Your task to perform on an android device: When is my next appointment? Image 0: 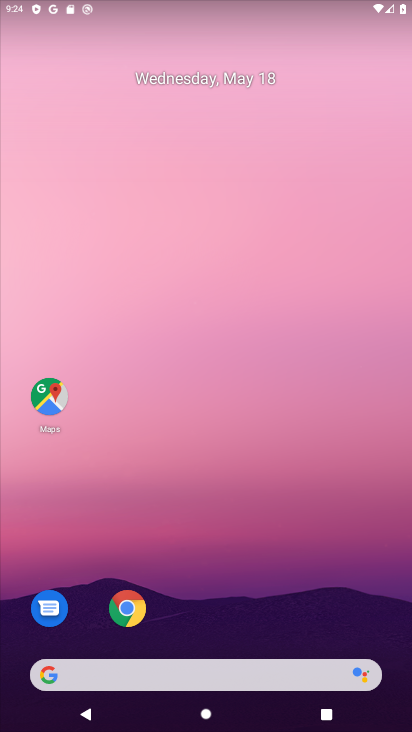
Step 0: drag from (342, 610) to (263, 217)
Your task to perform on an android device: When is my next appointment? Image 1: 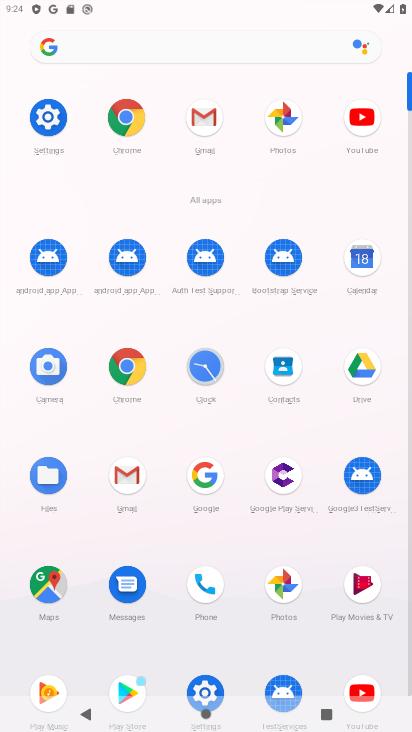
Step 1: click (361, 284)
Your task to perform on an android device: When is my next appointment? Image 2: 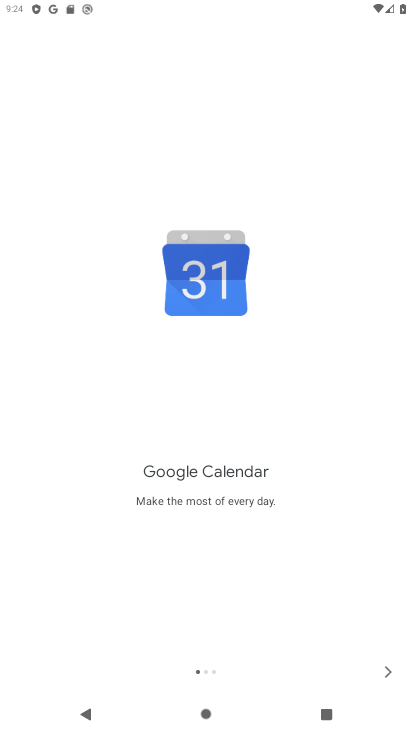
Step 2: click (391, 676)
Your task to perform on an android device: When is my next appointment? Image 3: 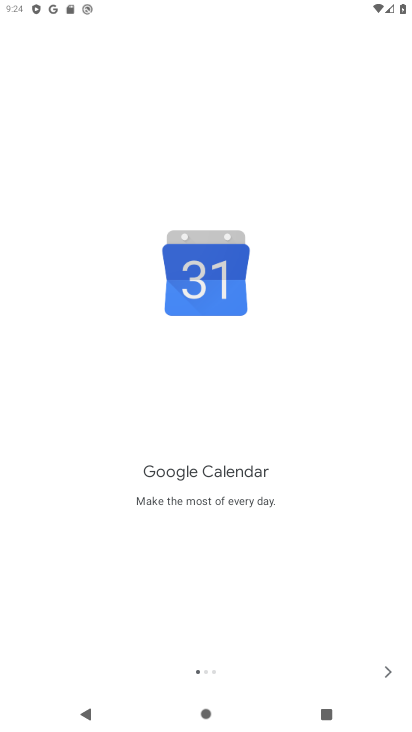
Step 3: click (391, 676)
Your task to perform on an android device: When is my next appointment? Image 4: 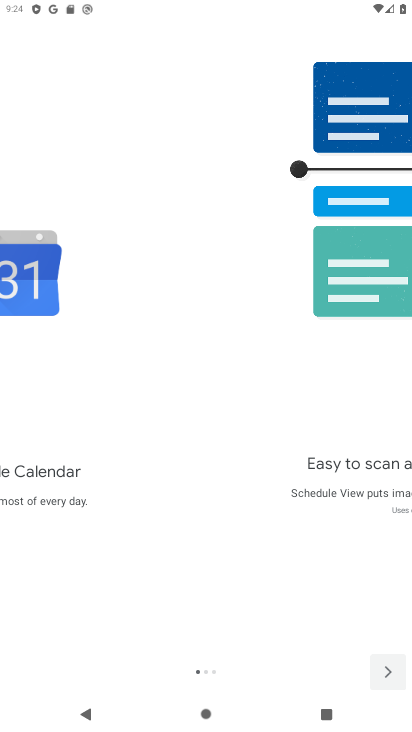
Step 4: click (391, 676)
Your task to perform on an android device: When is my next appointment? Image 5: 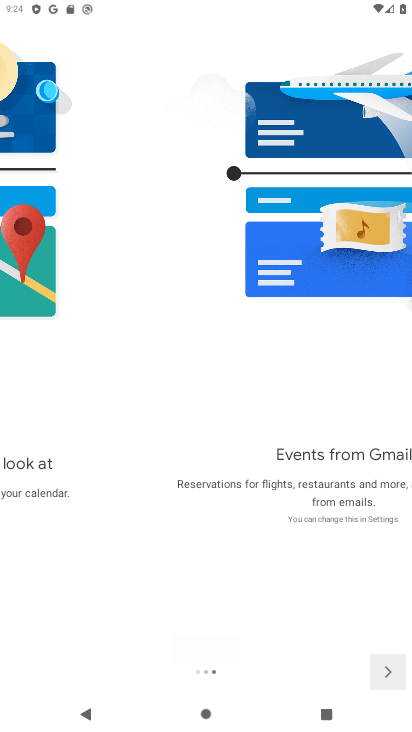
Step 5: click (391, 676)
Your task to perform on an android device: When is my next appointment? Image 6: 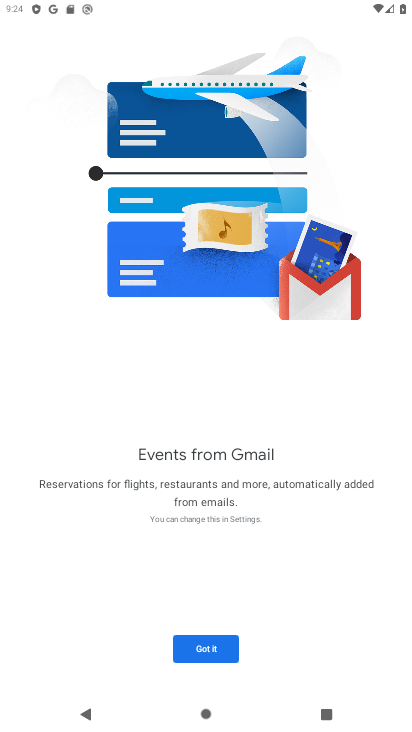
Step 6: click (220, 658)
Your task to perform on an android device: When is my next appointment? Image 7: 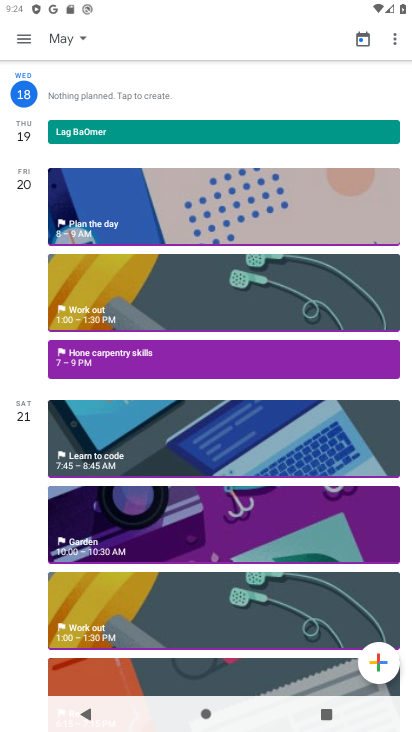
Step 7: click (25, 43)
Your task to perform on an android device: When is my next appointment? Image 8: 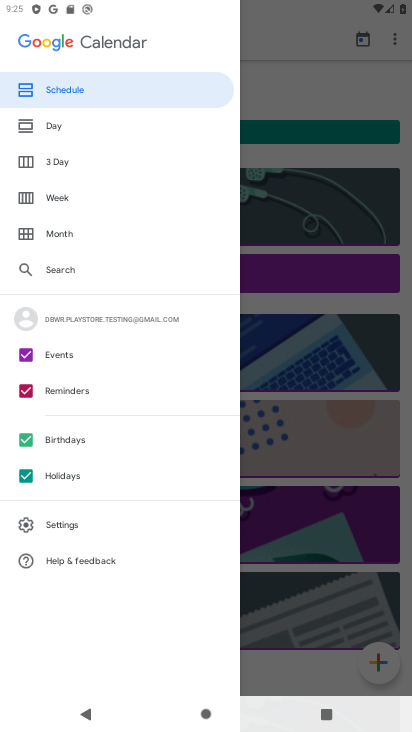
Step 8: click (63, 233)
Your task to perform on an android device: When is my next appointment? Image 9: 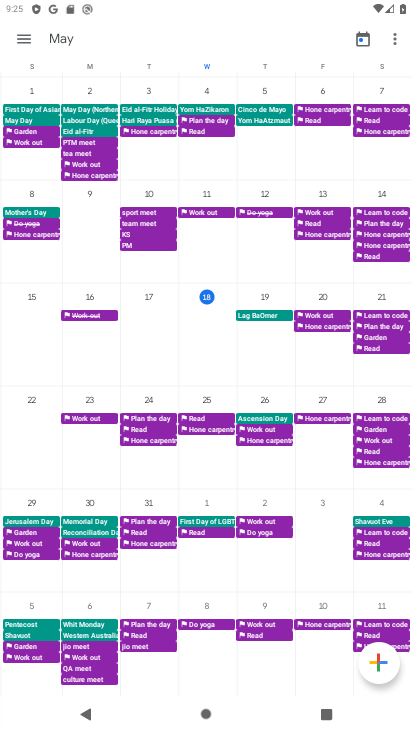
Step 9: task complete